Your task to perform on an android device: check storage Image 0: 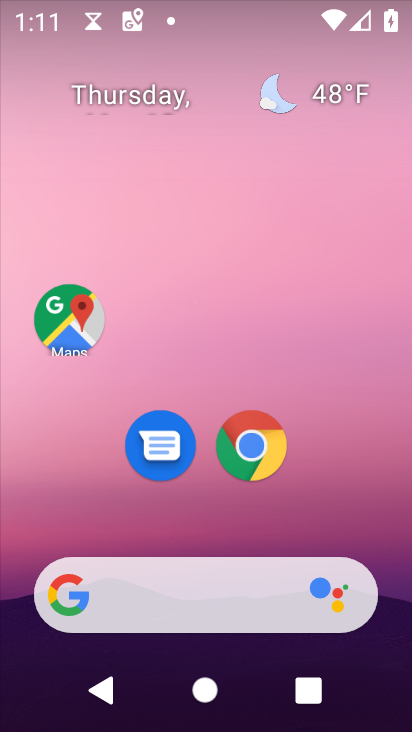
Step 0: drag from (309, 450) to (321, 26)
Your task to perform on an android device: check storage Image 1: 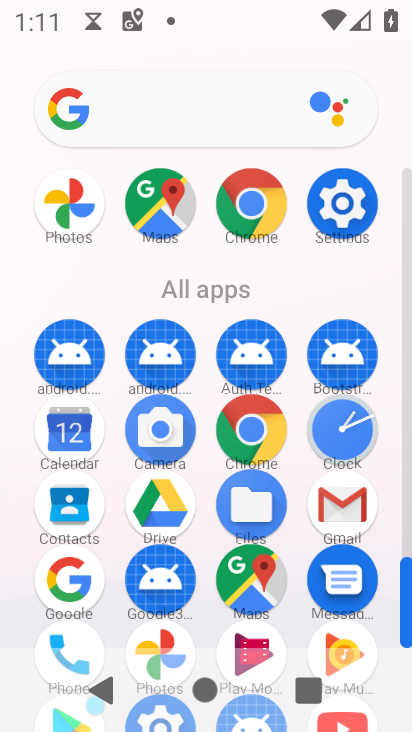
Step 1: click (323, 186)
Your task to perform on an android device: check storage Image 2: 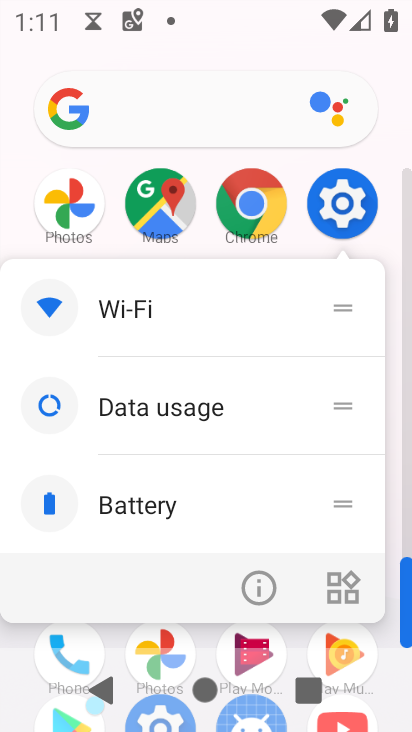
Step 2: click (354, 213)
Your task to perform on an android device: check storage Image 3: 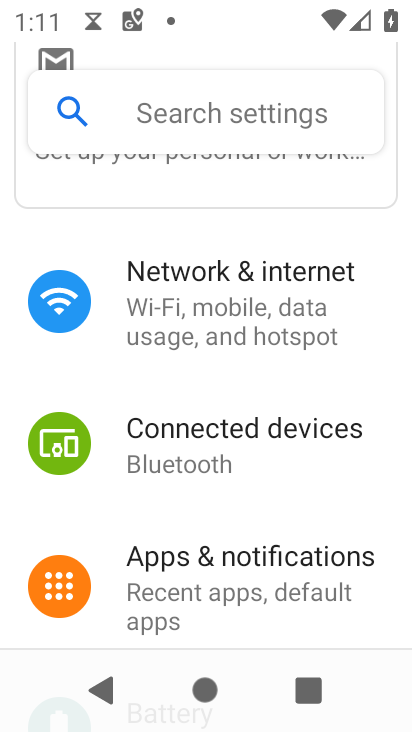
Step 3: drag from (307, 524) to (242, 64)
Your task to perform on an android device: check storage Image 4: 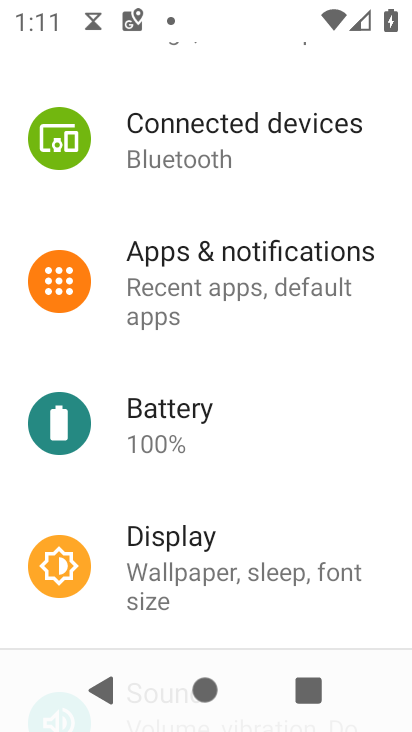
Step 4: drag from (273, 480) to (256, 86)
Your task to perform on an android device: check storage Image 5: 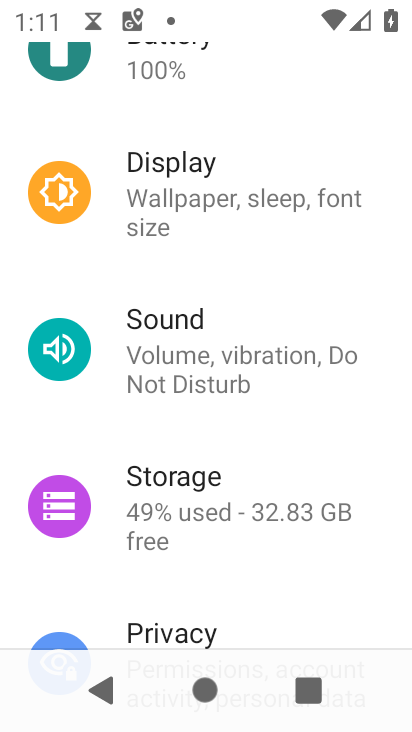
Step 5: click (238, 488)
Your task to perform on an android device: check storage Image 6: 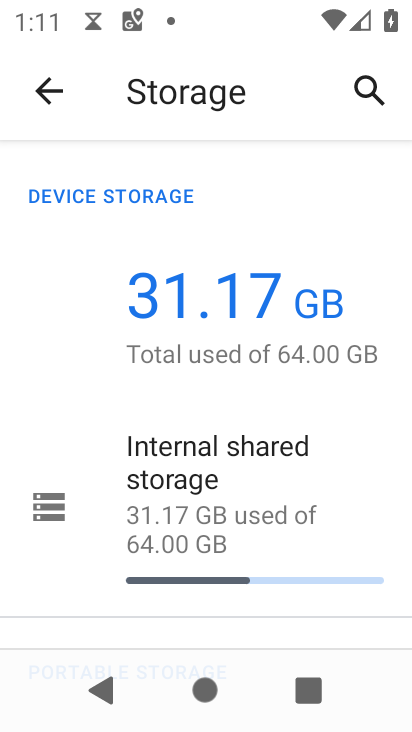
Step 6: task complete